Your task to perform on an android device: find photos in the google photos app Image 0: 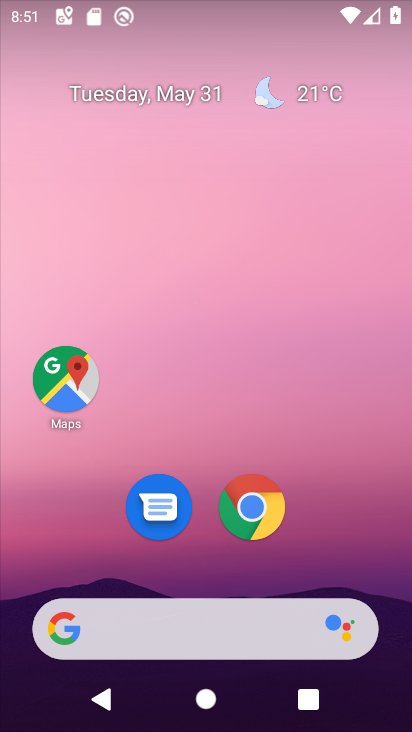
Step 0: drag from (276, 682) to (166, 27)
Your task to perform on an android device: find photos in the google photos app Image 1: 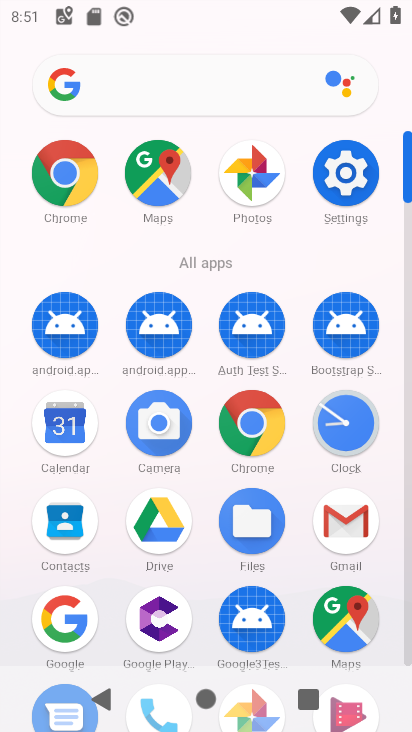
Step 1: drag from (283, 561) to (263, 133)
Your task to perform on an android device: find photos in the google photos app Image 2: 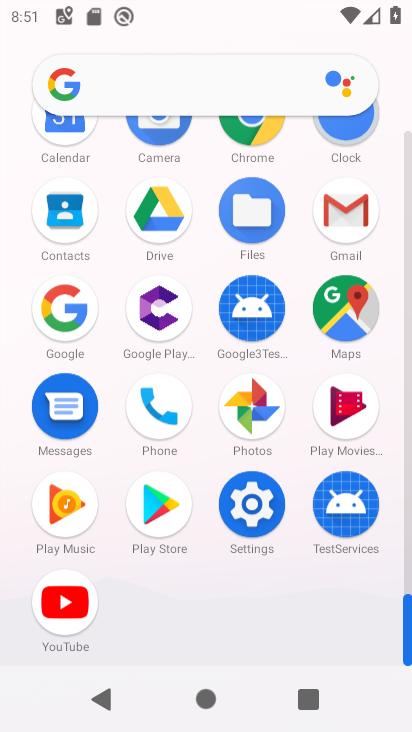
Step 2: drag from (313, 430) to (297, 67)
Your task to perform on an android device: find photos in the google photos app Image 3: 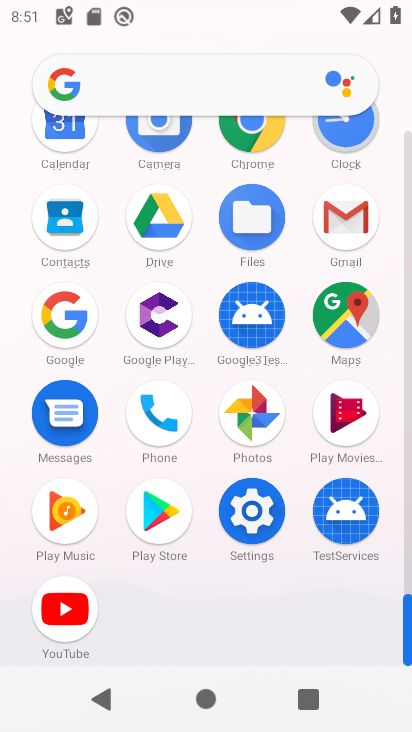
Step 3: click (253, 408)
Your task to perform on an android device: find photos in the google photos app Image 4: 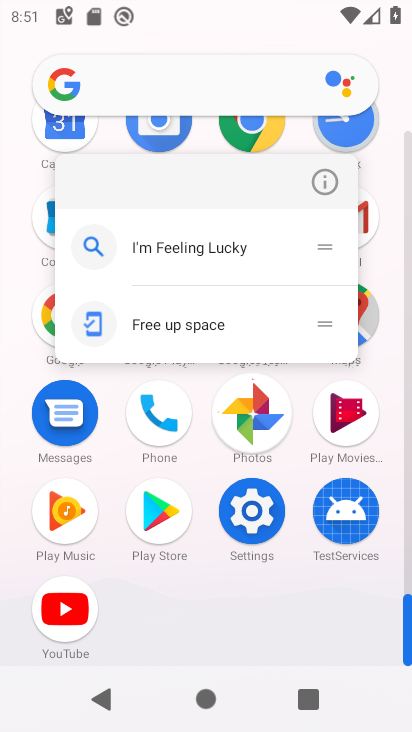
Step 4: click (253, 408)
Your task to perform on an android device: find photos in the google photos app Image 5: 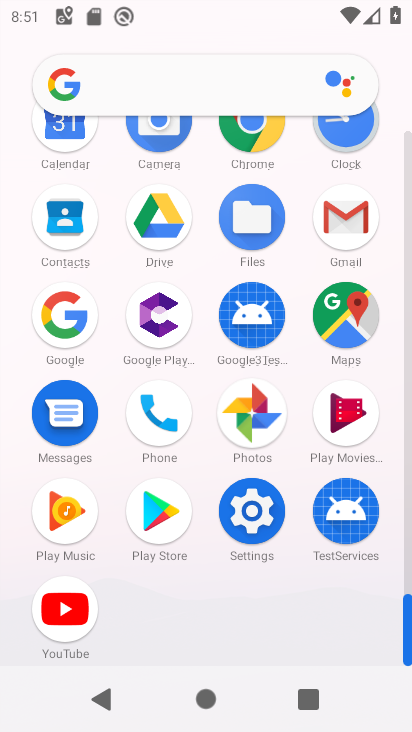
Step 5: click (254, 415)
Your task to perform on an android device: find photos in the google photos app Image 6: 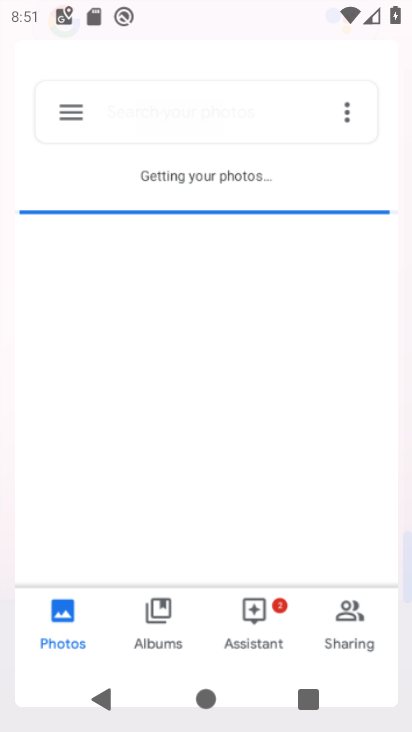
Step 6: click (253, 415)
Your task to perform on an android device: find photos in the google photos app Image 7: 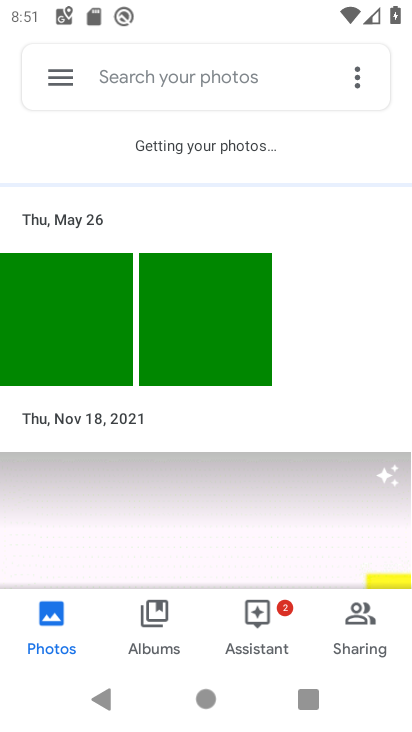
Step 7: task complete